Your task to perform on an android device: Add dell xps to the cart on costco Image 0: 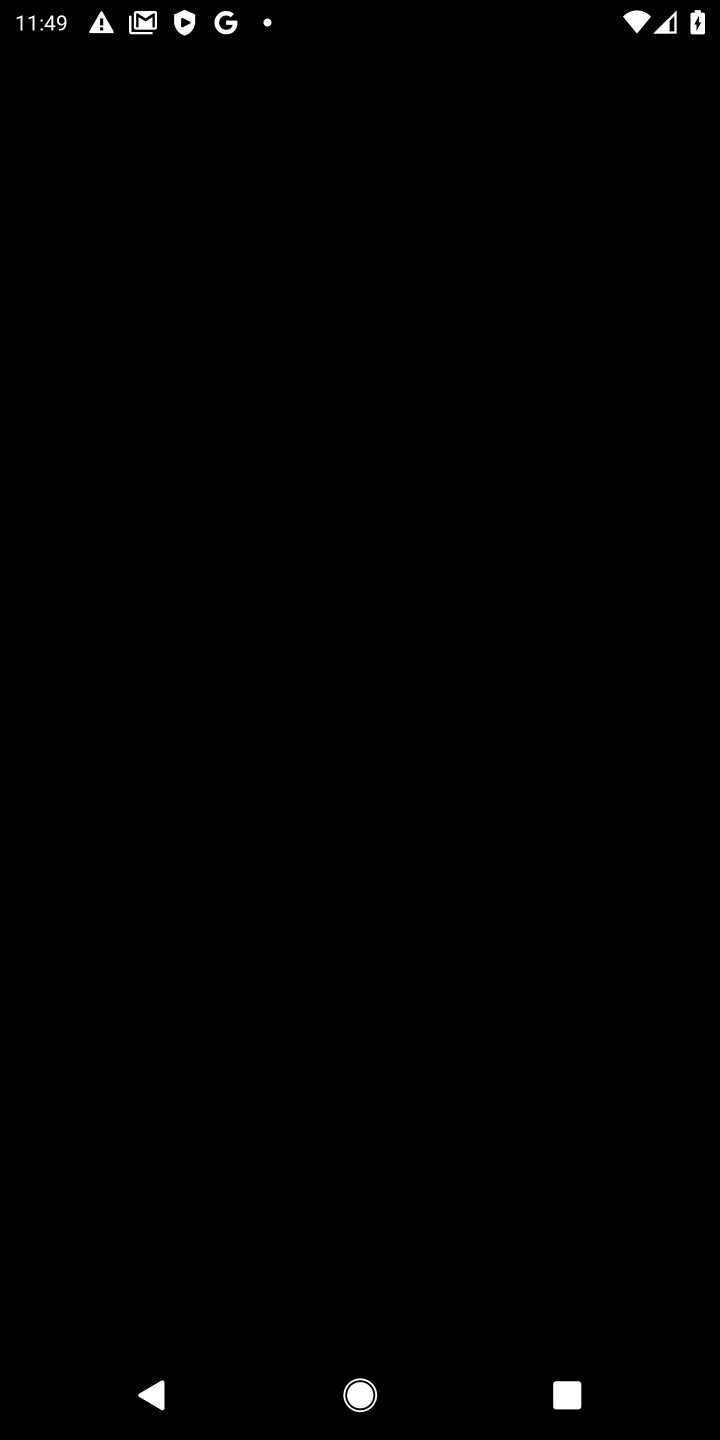
Step 0: press home button
Your task to perform on an android device: Add dell xps to the cart on costco Image 1: 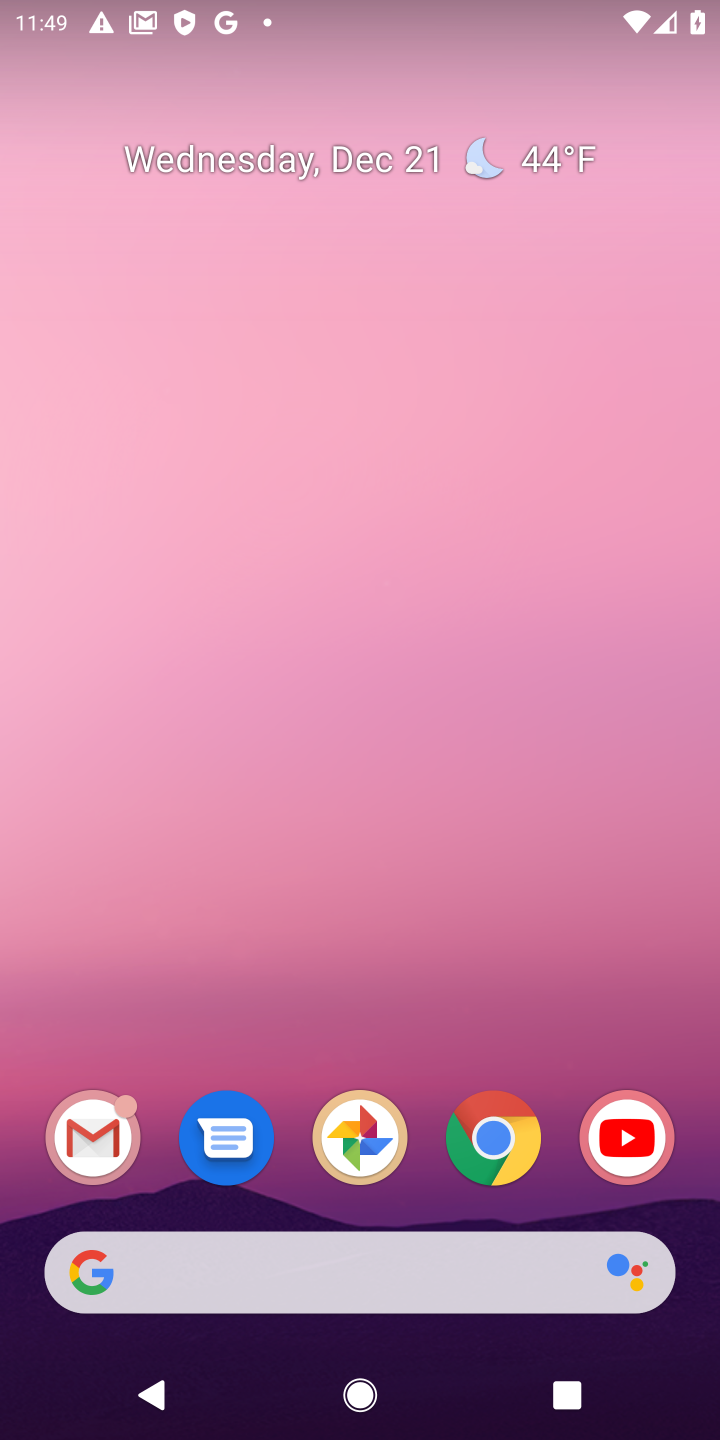
Step 1: click (496, 1152)
Your task to perform on an android device: Add dell xps to the cart on costco Image 2: 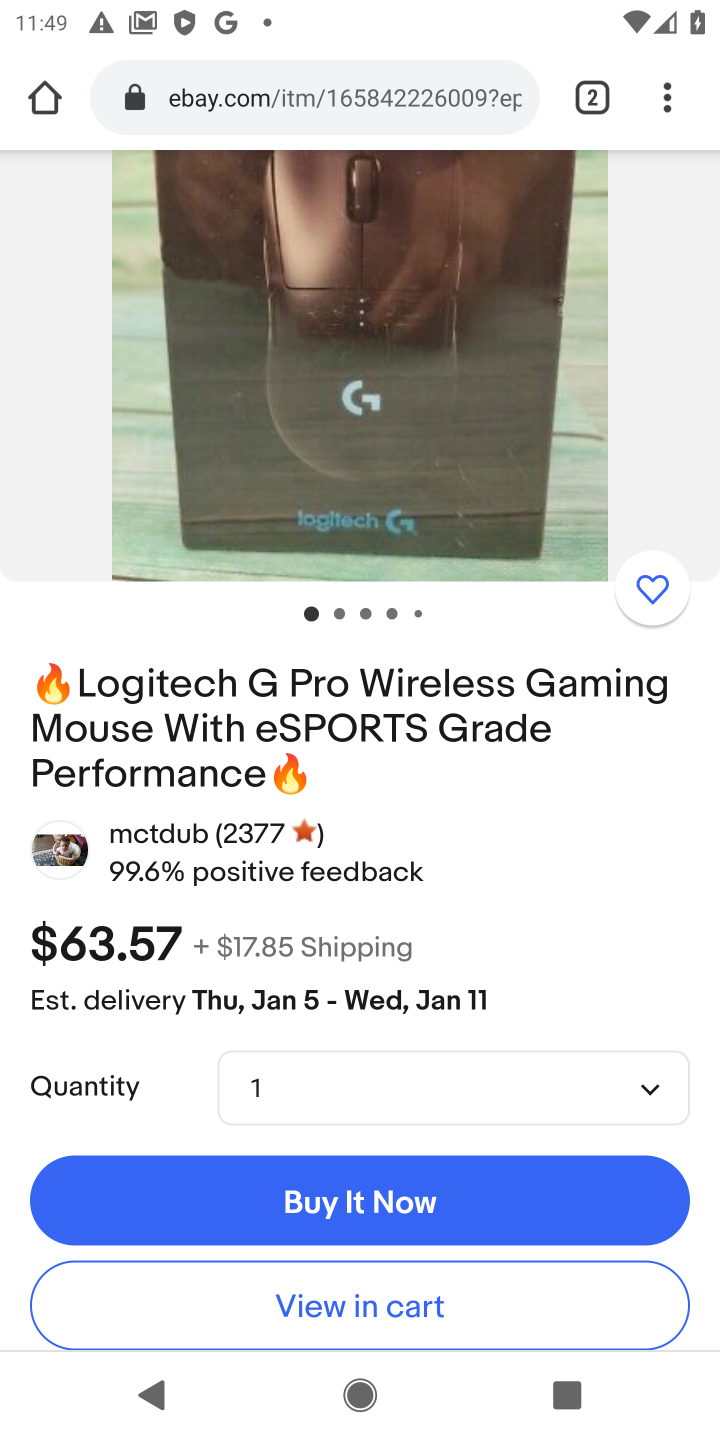
Step 2: click (269, 99)
Your task to perform on an android device: Add dell xps to the cart on costco Image 3: 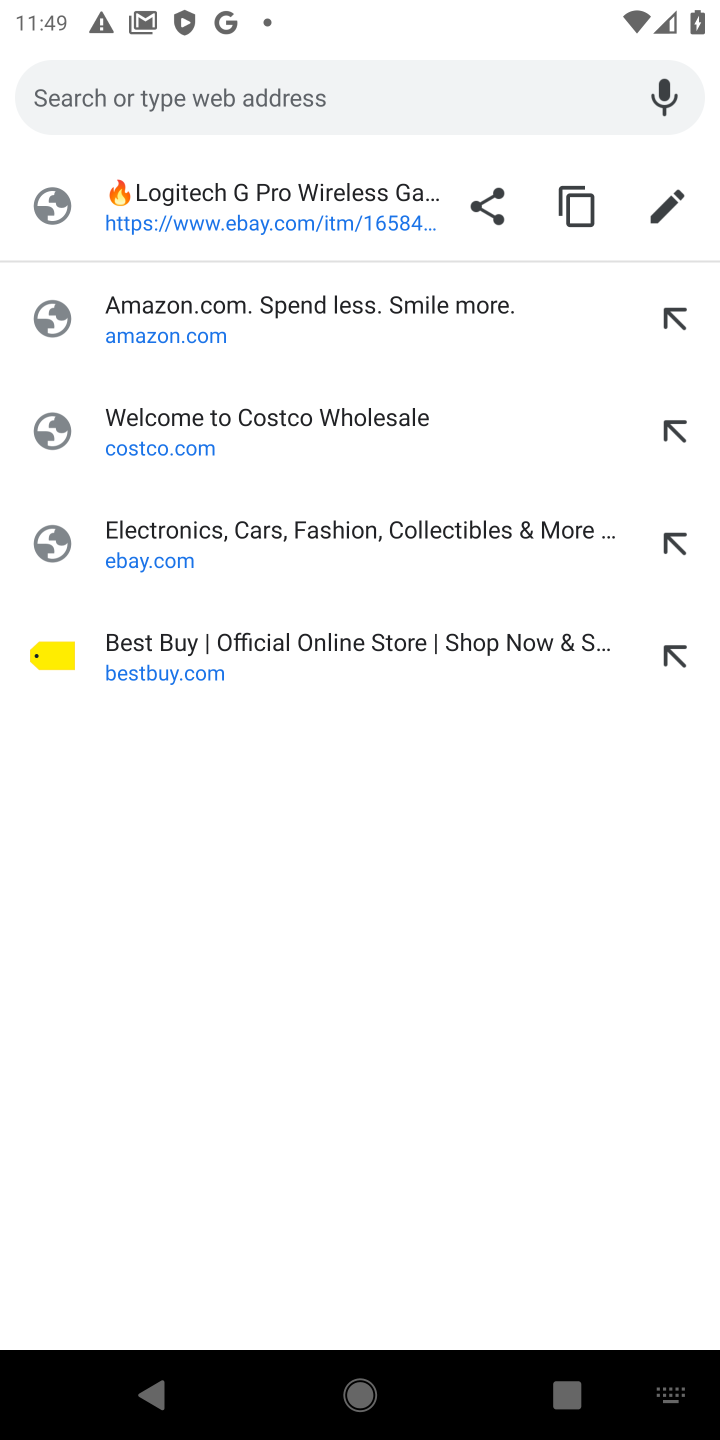
Step 3: click (156, 424)
Your task to perform on an android device: Add dell xps to the cart on costco Image 4: 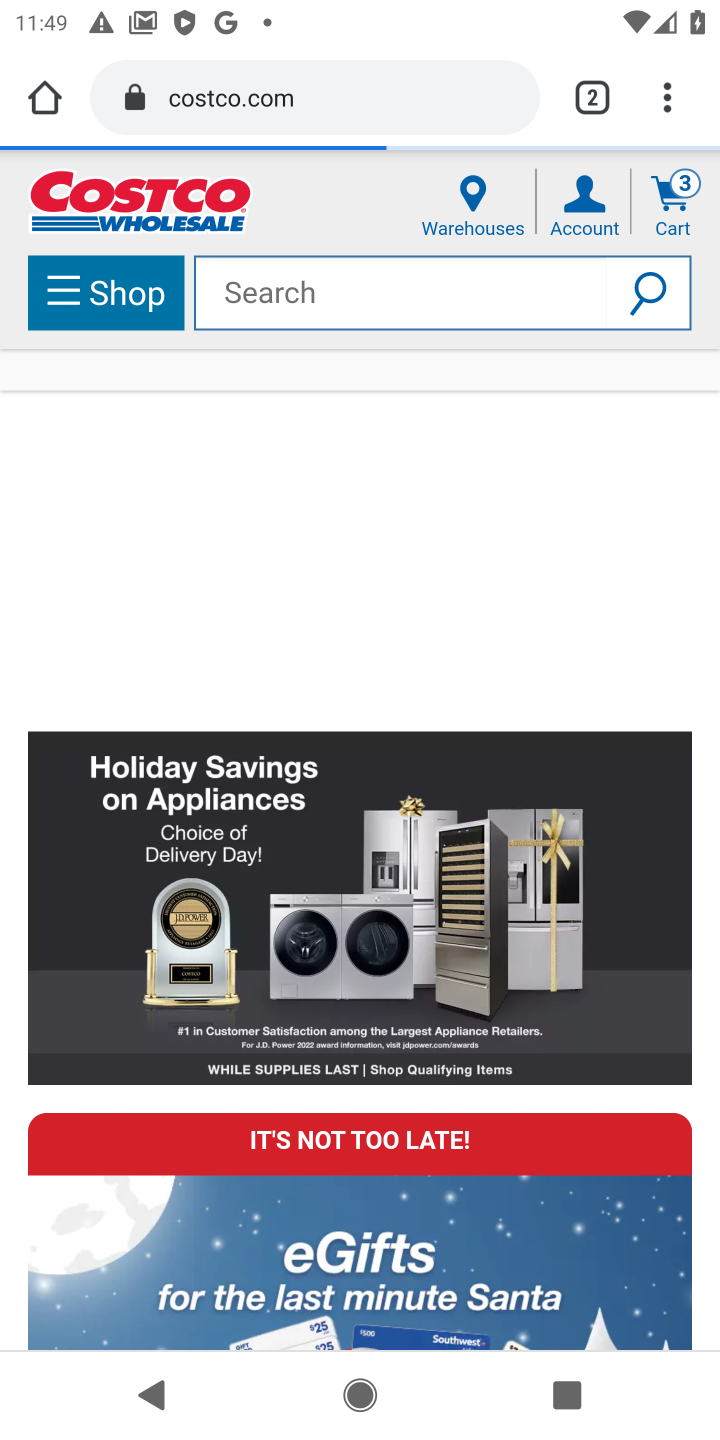
Step 4: click (274, 308)
Your task to perform on an android device: Add dell xps to the cart on costco Image 5: 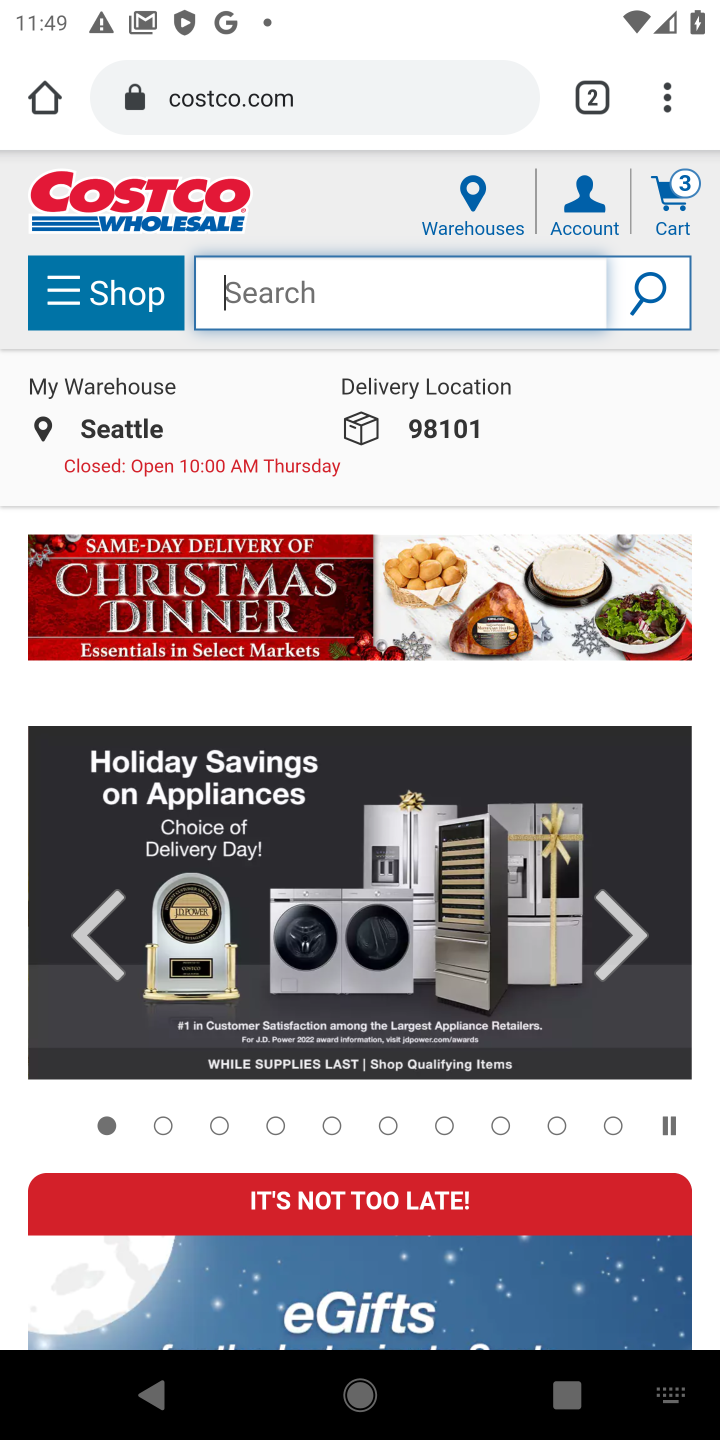
Step 5: type "dell xps"
Your task to perform on an android device: Add dell xps to the cart on costco Image 6: 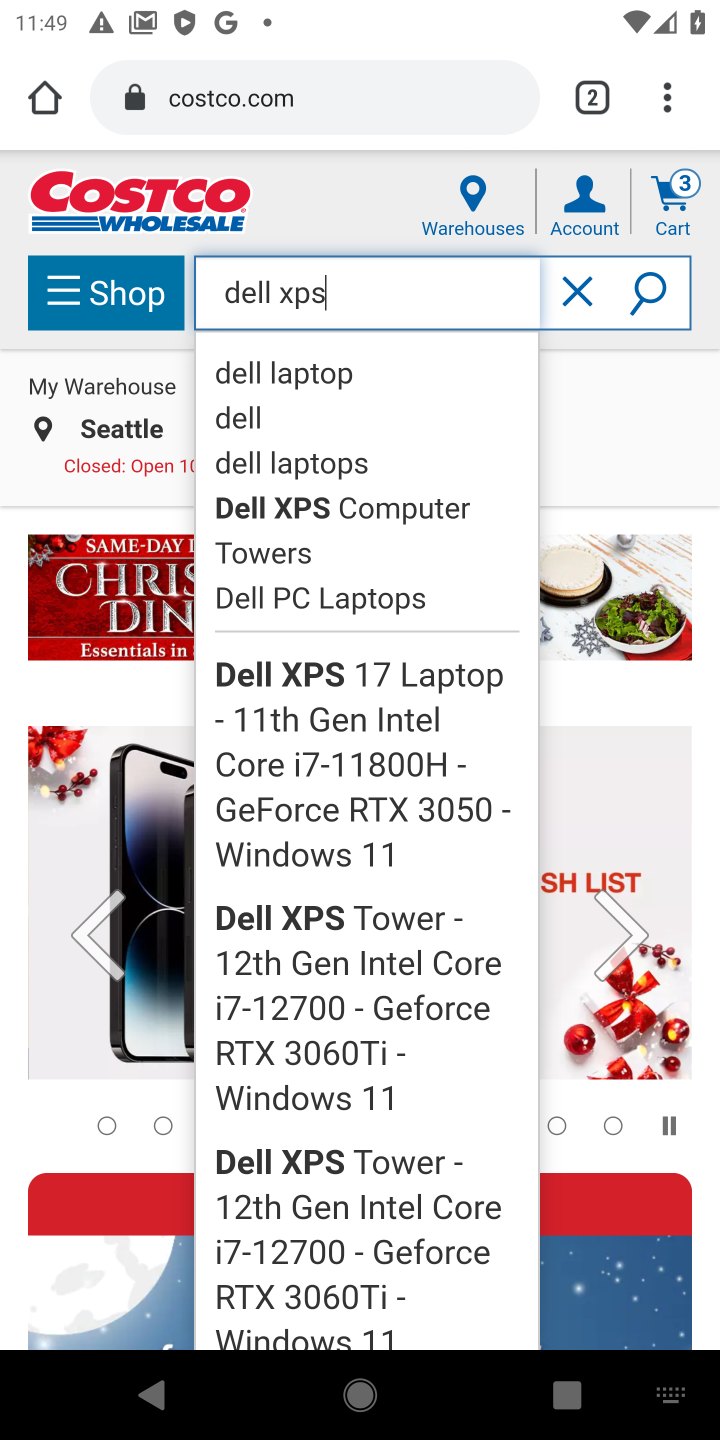
Step 6: click (641, 297)
Your task to perform on an android device: Add dell xps to the cart on costco Image 7: 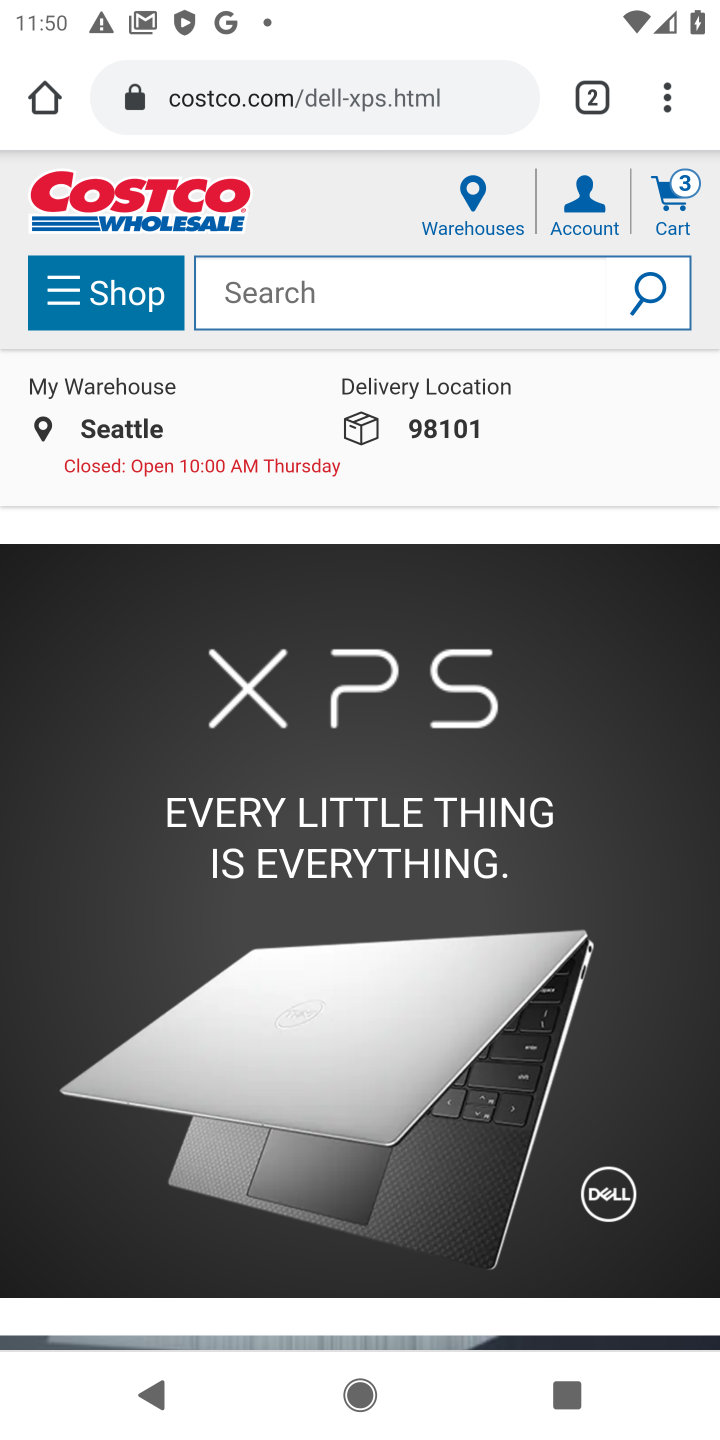
Step 7: task complete